Your task to perform on an android device: Show me the alarms in the clock app Image 0: 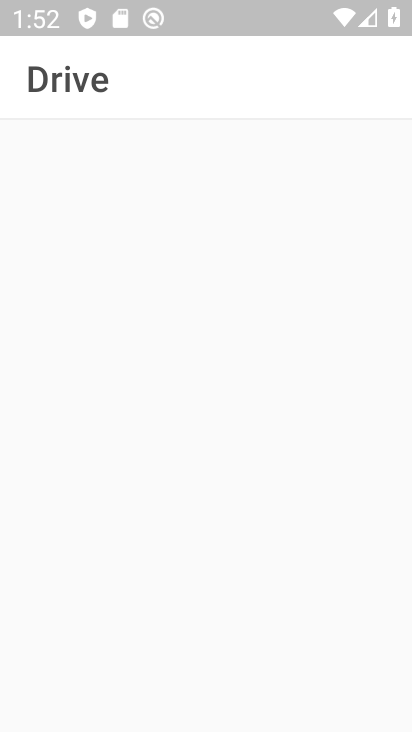
Step 0: press home button
Your task to perform on an android device: Show me the alarms in the clock app Image 1: 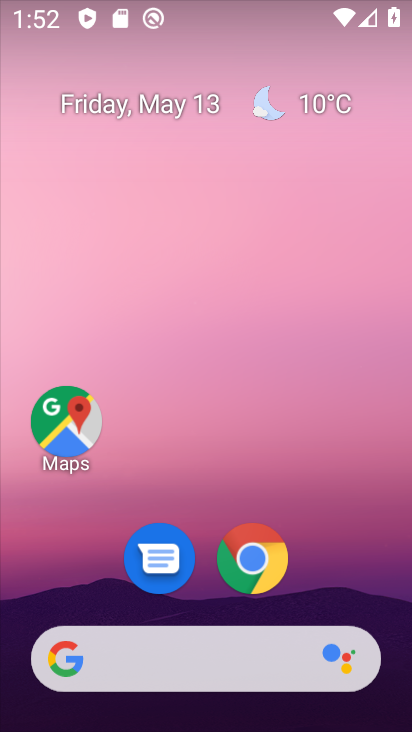
Step 1: drag from (194, 604) to (201, 156)
Your task to perform on an android device: Show me the alarms in the clock app Image 2: 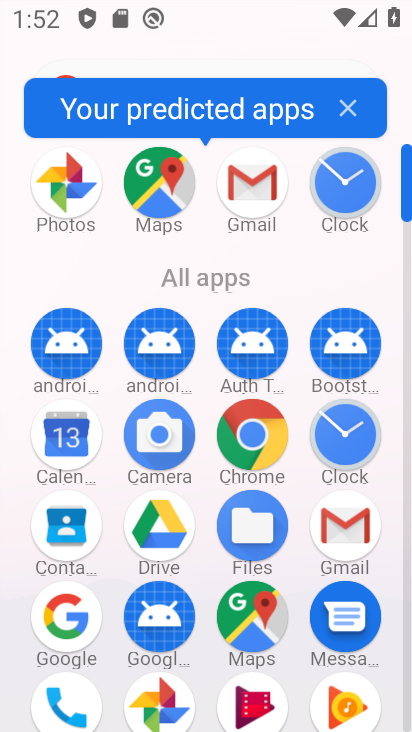
Step 2: click (337, 166)
Your task to perform on an android device: Show me the alarms in the clock app Image 3: 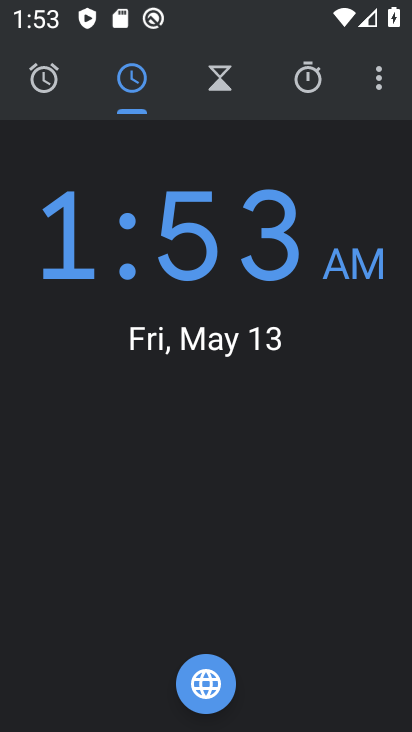
Step 3: click (55, 87)
Your task to perform on an android device: Show me the alarms in the clock app Image 4: 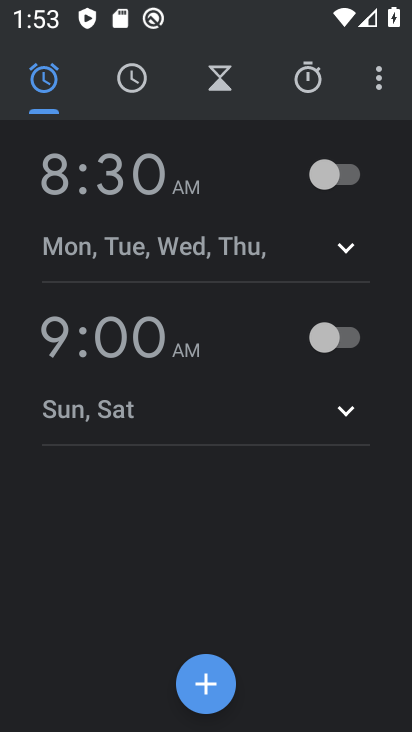
Step 4: task complete